Your task to perform on an android device: open app "DoorDash - Food Delivery" (install if not already installed) and go to login screen Image 0: 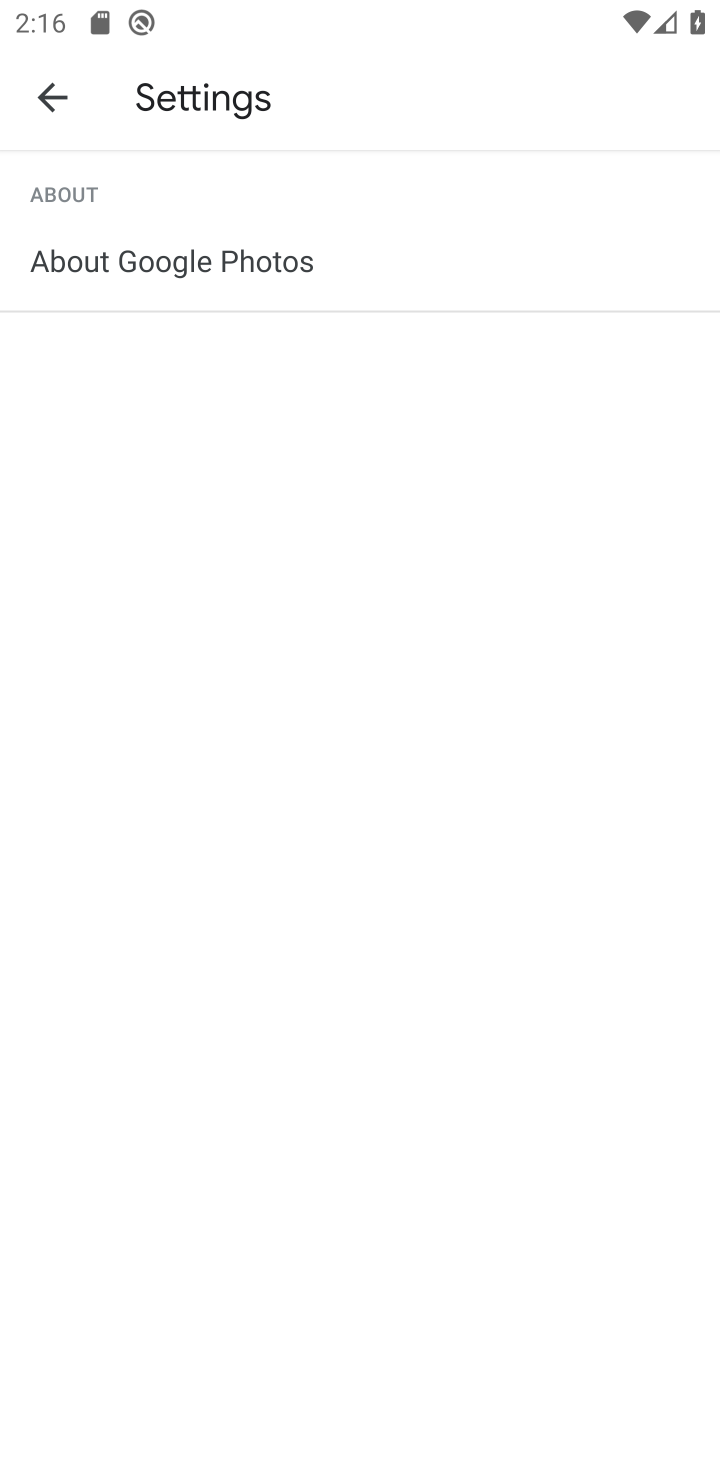
Step 0: click (59, 71)
Your task to perform on an android device: open app "DoorDash - Food Delivery" (install if not already installed) and go to login screen Image 1: 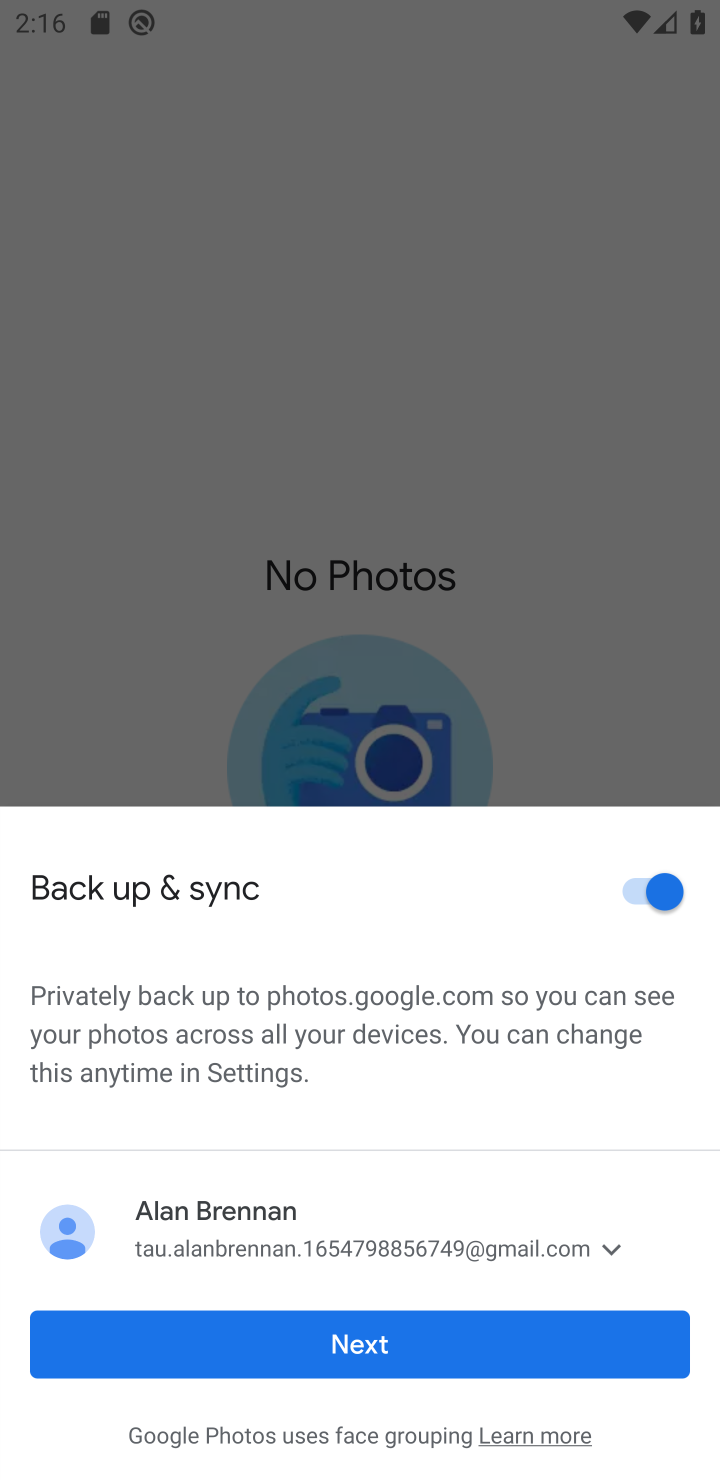
Step 1: press home button
Your task to perform on an android device: open app "DoorDash - Food Delivery" (install if not already installed) and go to login screen Image 2: 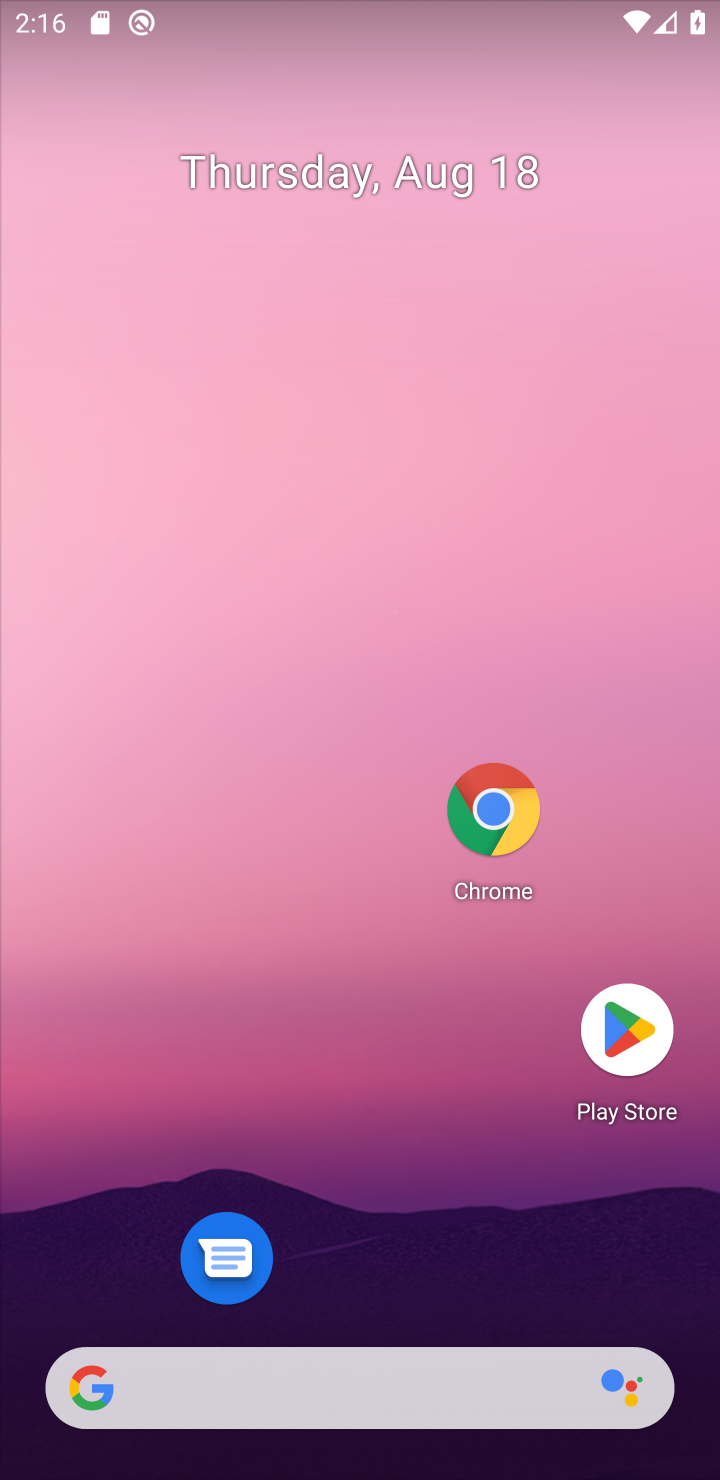
Step 2: click (611, 1042)
Your task to perform on an android device: open app "DoorDash - Food Delivery" (install if not already installed) and go to login screen Image 3: 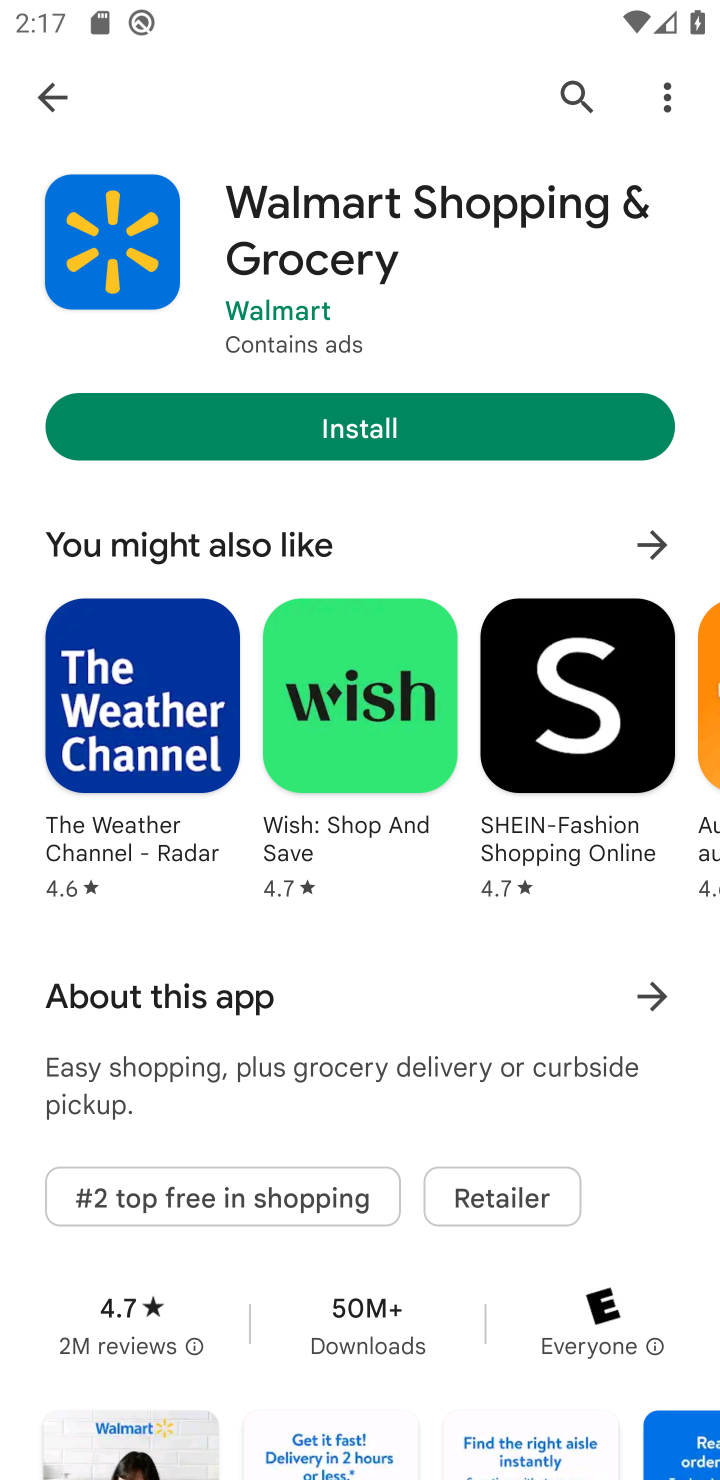
Step 3: click (32, 79)
Your task to perform on an android device: open app "DoorDash - Food Delivery" (install if not already installed) and go to login screen Image 4: 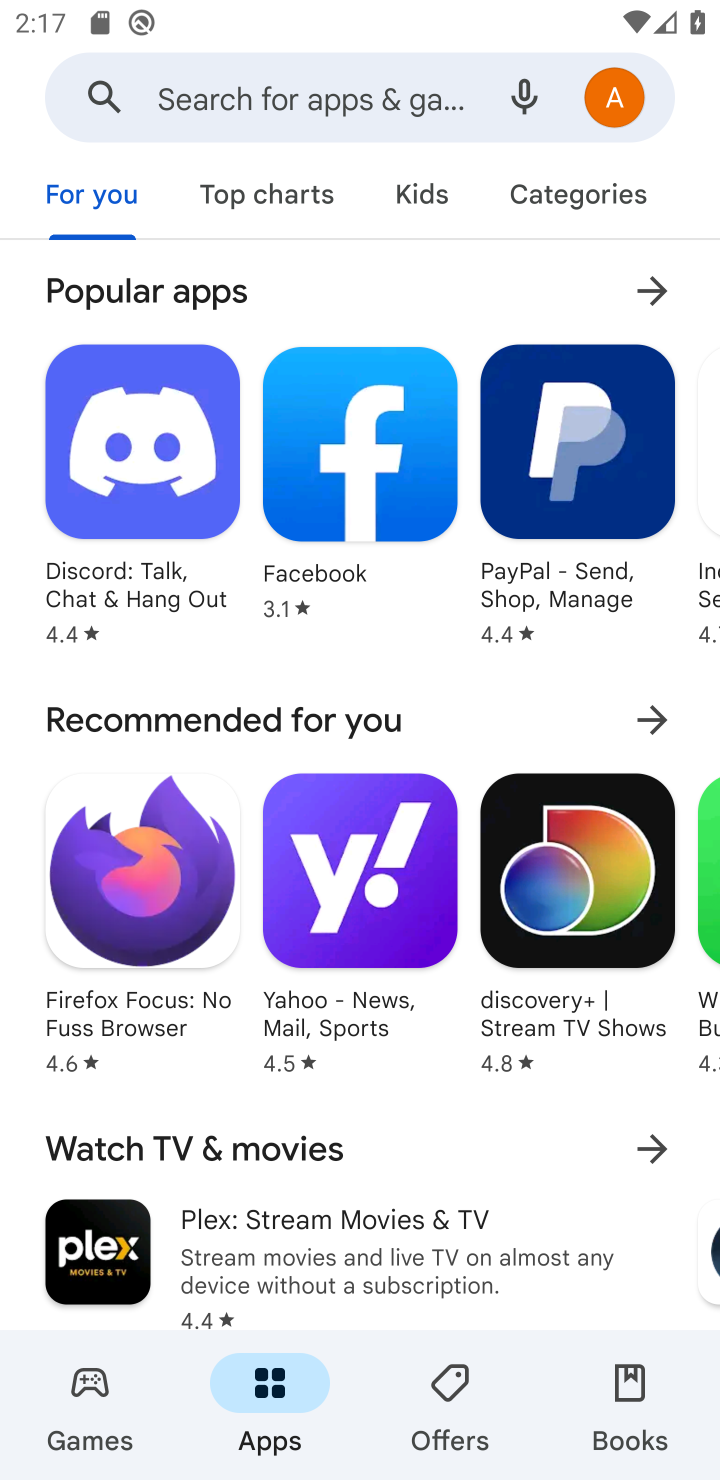
Step 4: click (337, 64)
Your task to perform on an android device: open app "DoorDash - Food Delivery" (install if not already installed) and go to login screen Image 5: 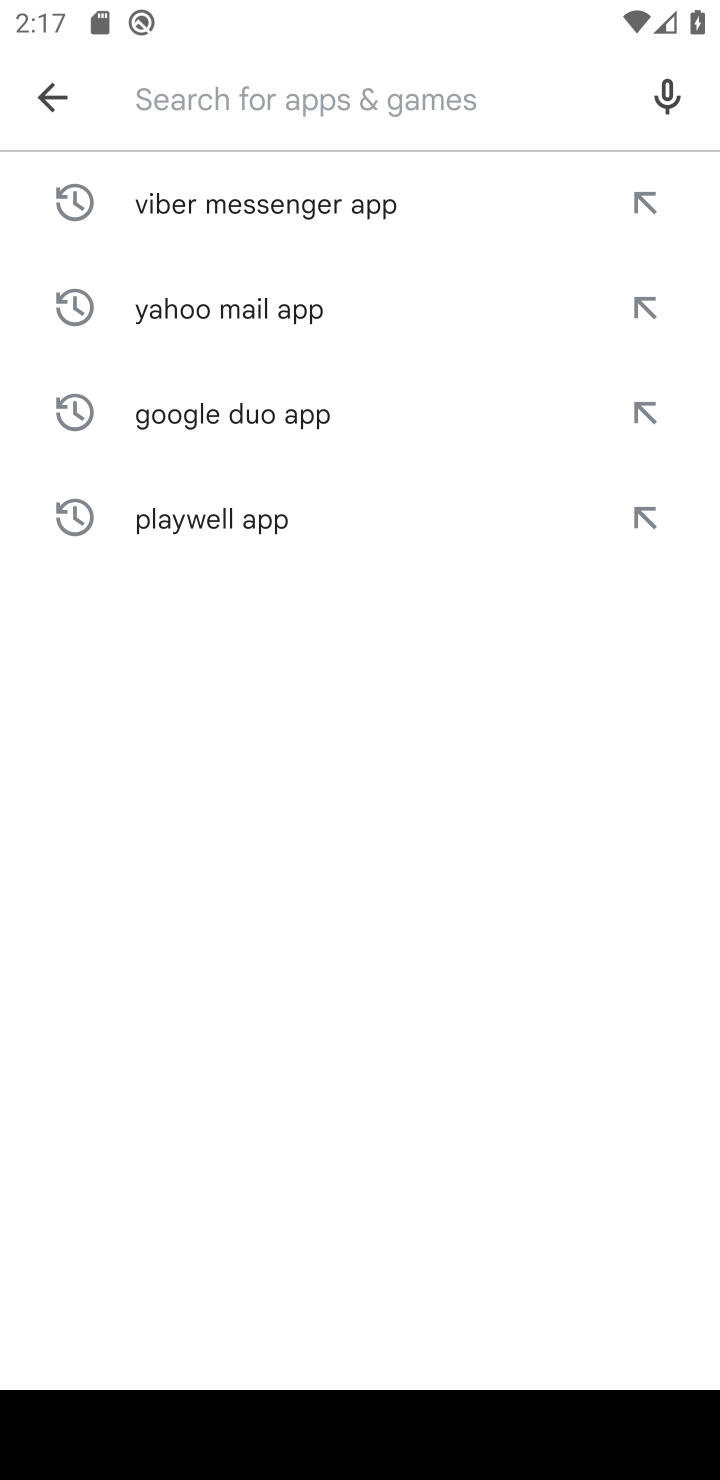
Step 5: type "DoorDash - Food Delivery "
Your task to perform on an android device: open app "DoorDash - Food Delivery" (install if not already installed) and go to login screen Image 6: 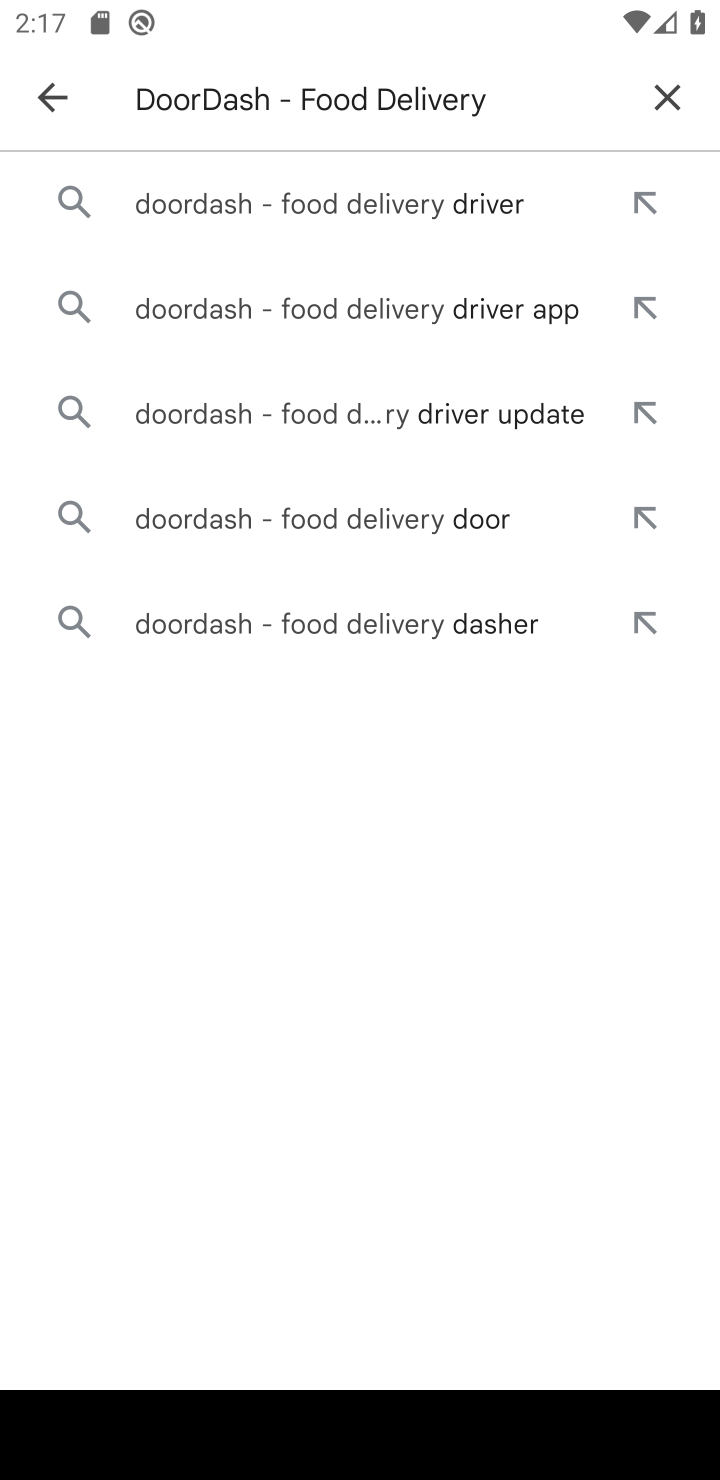
Step 6: click (259, 228)
Your task to perform on an android device: open app "DoorDash - Food Delivery" (install if not already installed) and go to login screen Image 7: 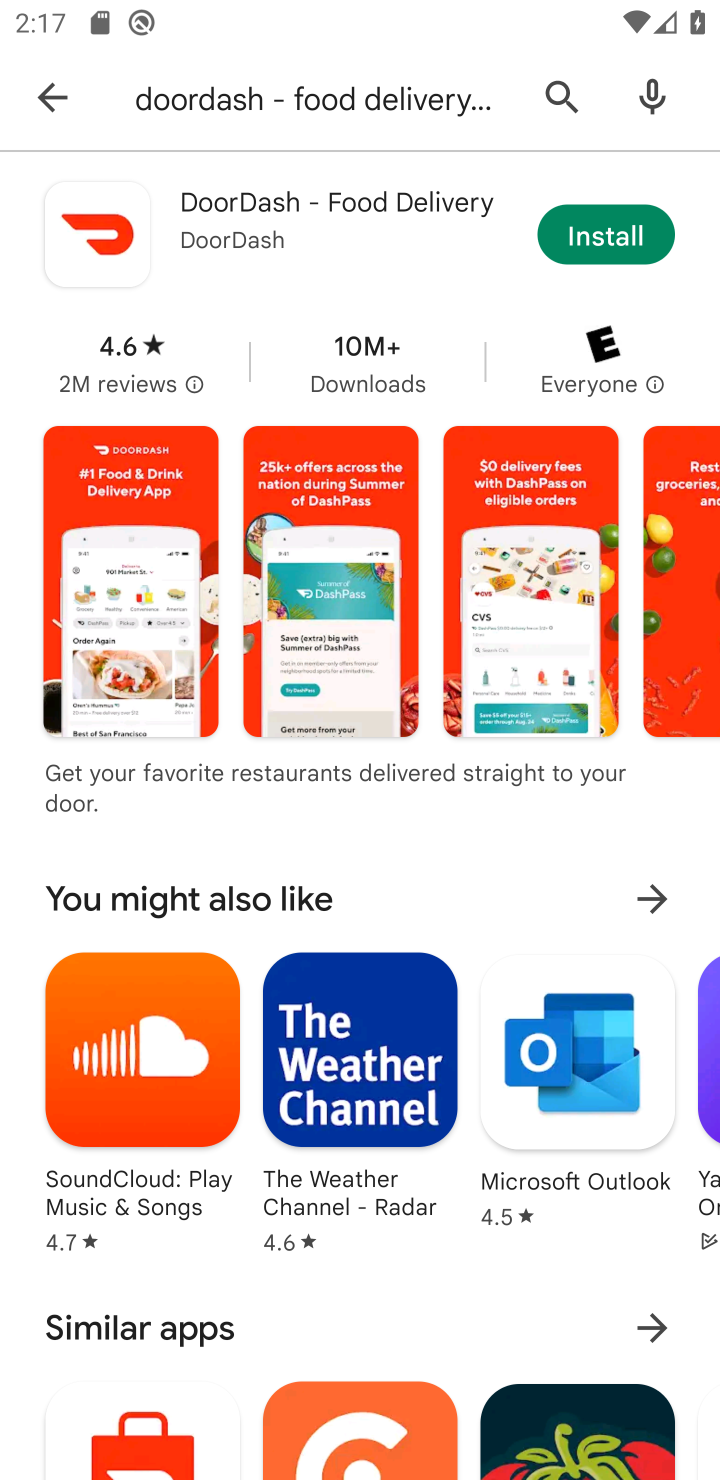
Step 7: click (581, 215)
Your task to perform on an android device: open app "DoorDash - Food Delivery" (install if not already installed) and go to login screen Image 8: 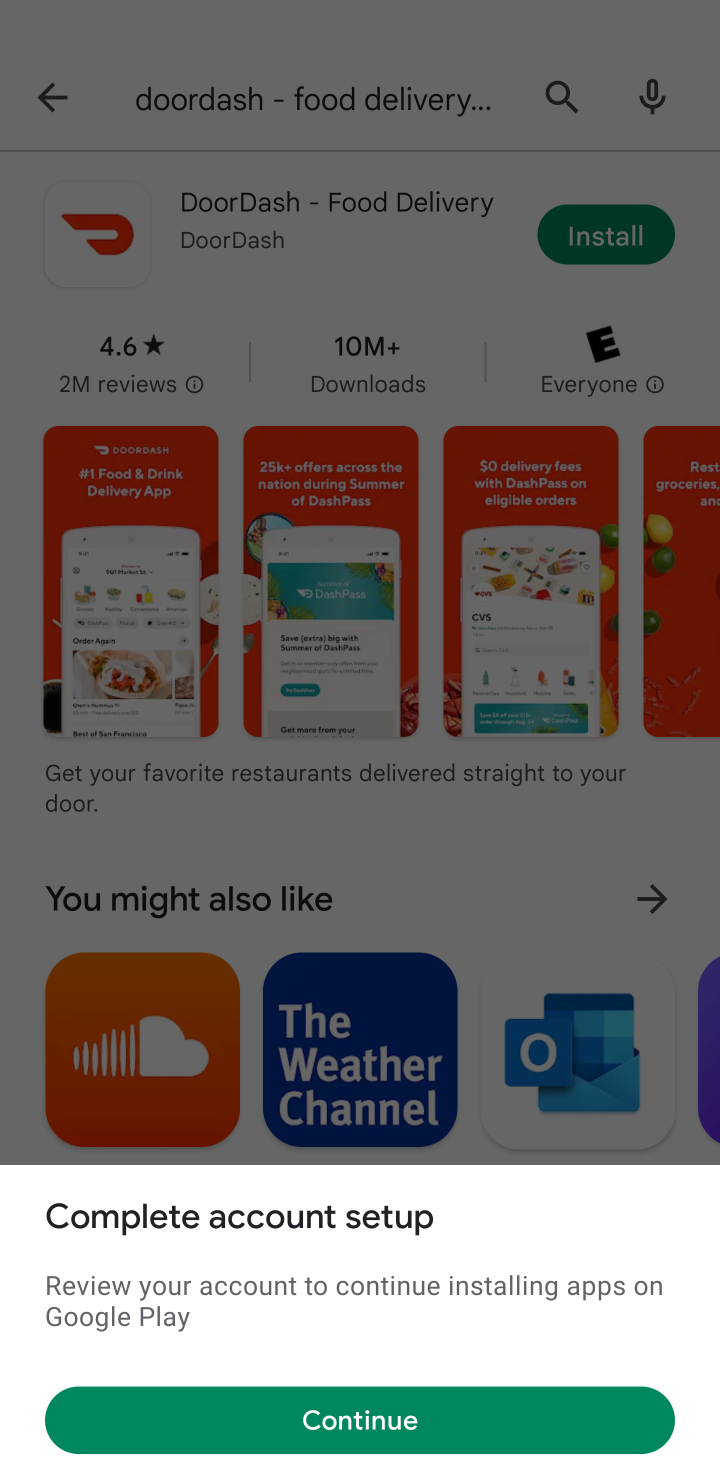
Step 8: task complete